Your task to perform on an android device: Open calendar and show me the first week of next month Image 0: 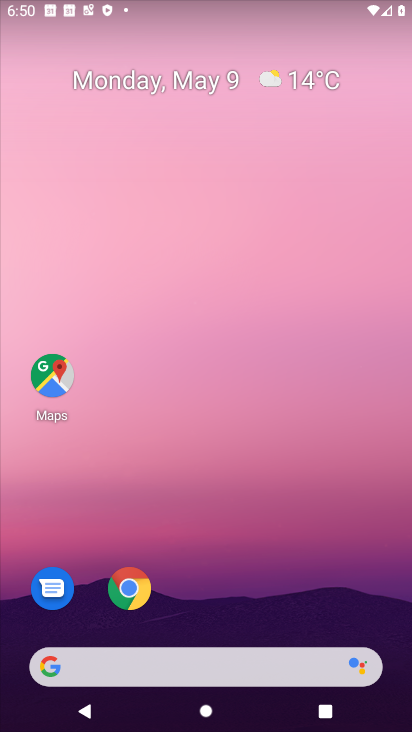
Step 0: drag from (356, 607) to (305, 17)
Your task to perform on an android device: Open calendar and show me the first week of next month Image 1: 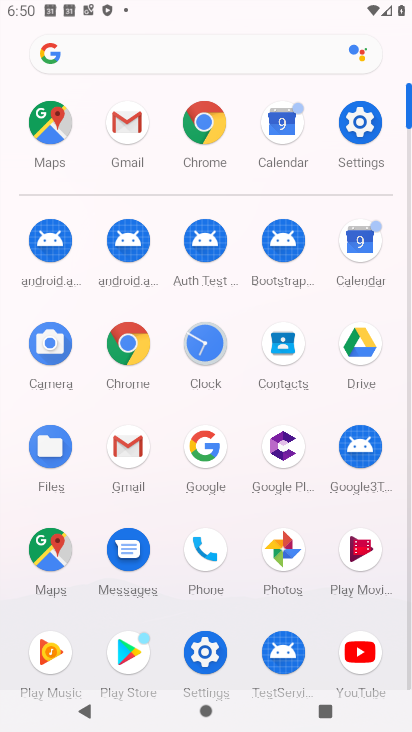
Step 1: click (358, 252)
Your task to perform on an android device: Open calendar and show me the first week of next month Image 2: 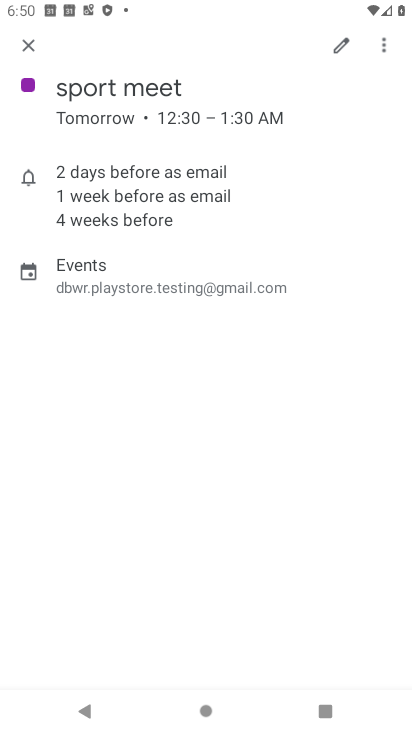
Step 2: click (33, 48)
Your task to perform on an android device: Open calendar and show me the first week of next month Image 3: 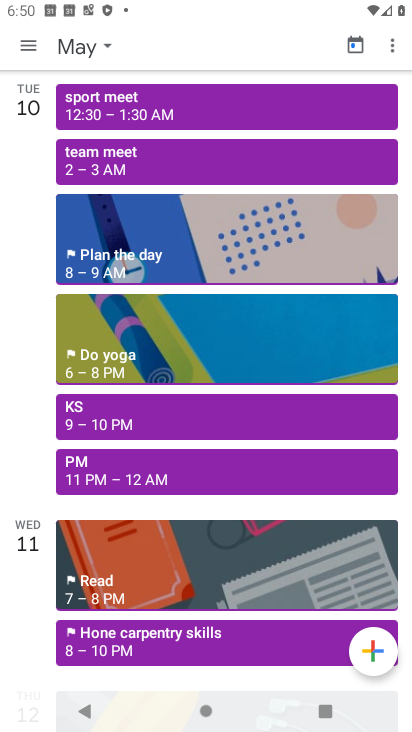
Step 3: click (88, 50)
Your task to perform on an android device: Open calendar and show me the first week of next month Image 4: 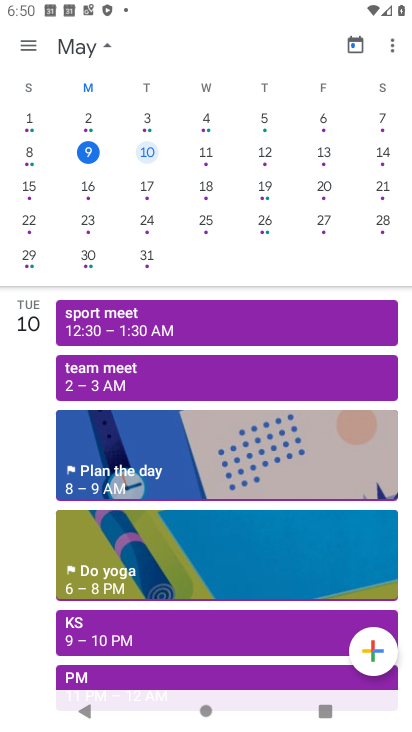
Step 4: drag from (341, 200) to (0, 142)
Your task to perform on an android device: Open calendar and show me the first week of next month Image 5: 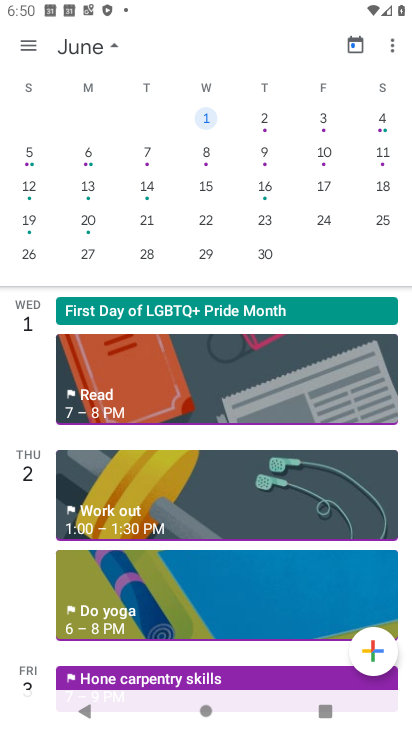
Step 5: click (25, 157)
Your task to perform on an android device: Open calendar and show me the first week of next month Image 6: 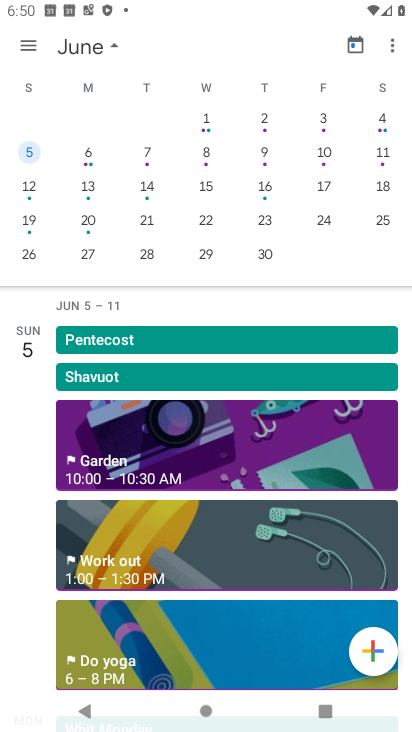
Step 6: task complete